Your task to perform on an android device: Go to Reddit.com Image 0: 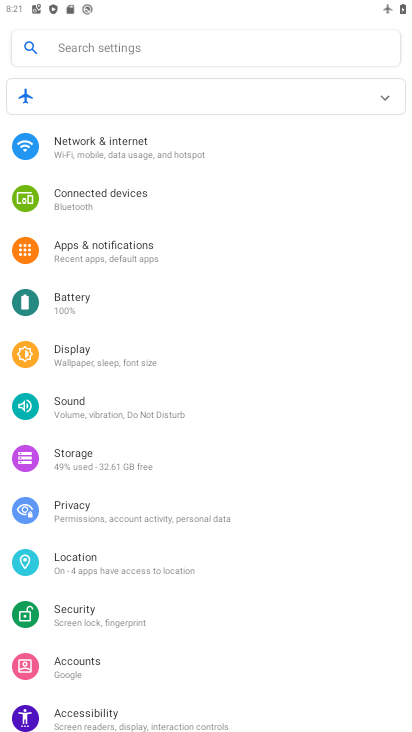
Step 0: press home button
Your task to perform on an android device: Go to Reddit.com Image 1: 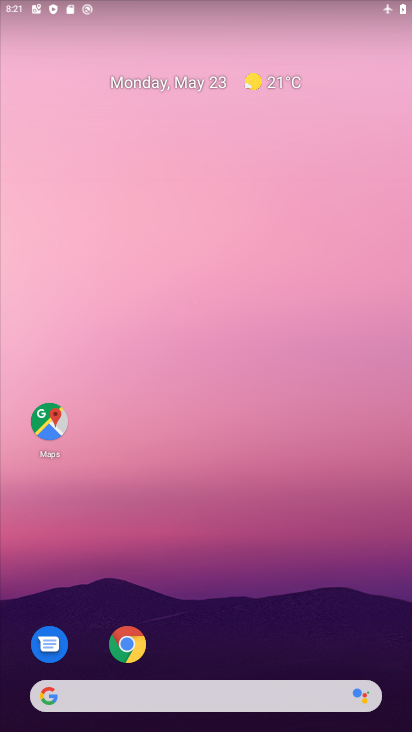
Step 1: click (219, 695)
Your task to perform on an android device: Go to Reddit.com Image 2: 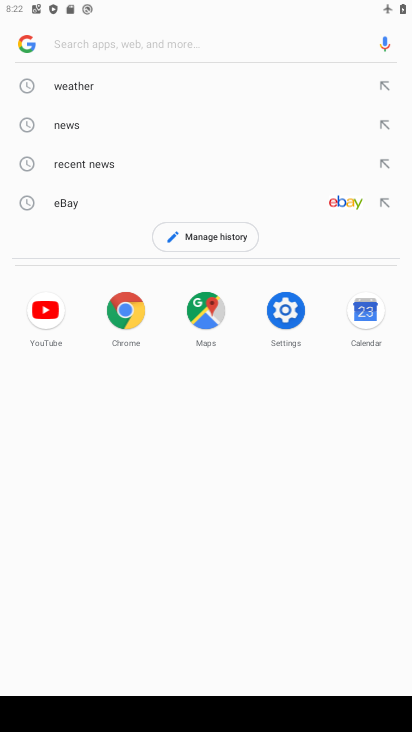
Step 2: type "reddit.com"
Your task to perform on an android device: Go to Reddit.com Image 3: 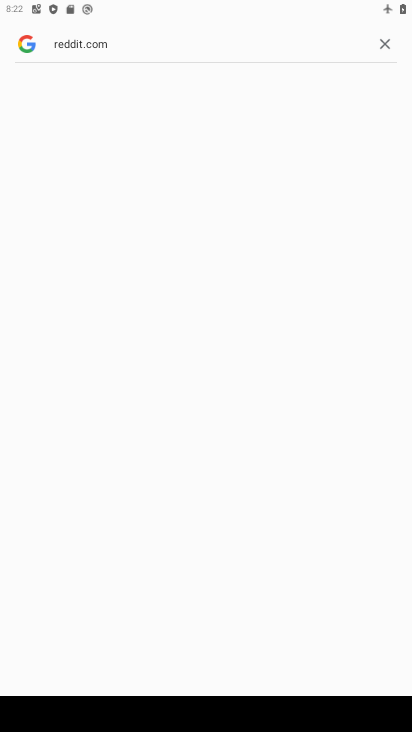
Step 3: task complete